Your task to perform on an android device: Open calendar and show me the second week of next month Image 0: 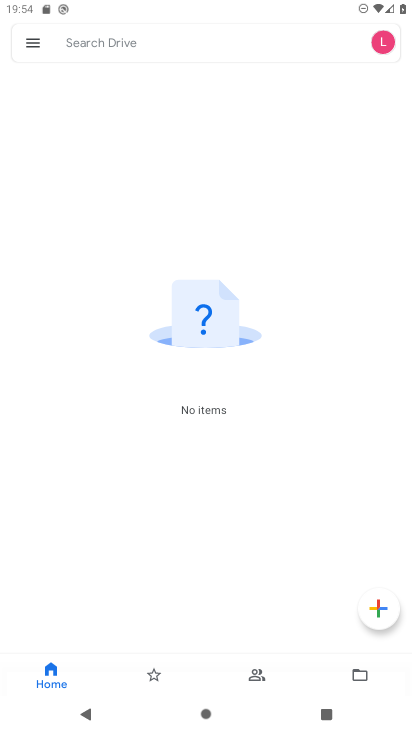
Step 0: press home button
Your task to perform on an android device: Open calendar and show me the second week of next month Image 1: 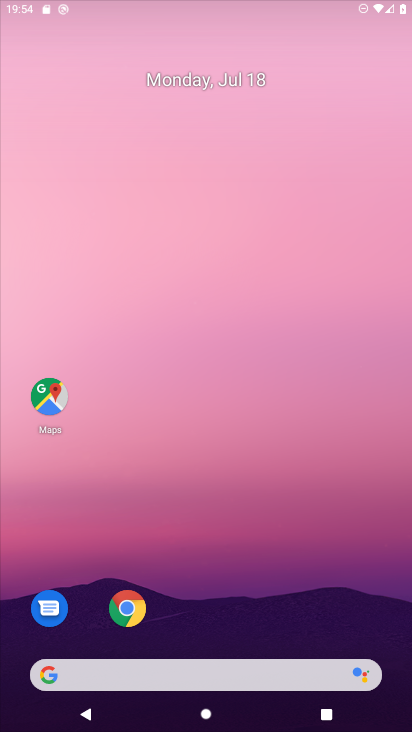
Step 1: drag from (200, 622) to (242, 23)
Your task to perform on an android device: Open calendar and show me the second week of next month Image 2: 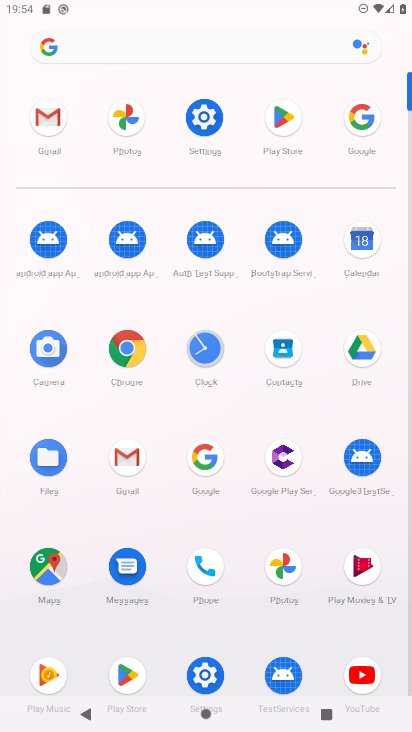
Step 2: click (362, 232)
Your task to perform on an android device: Open calendar and show me the second week of next month Image 3: 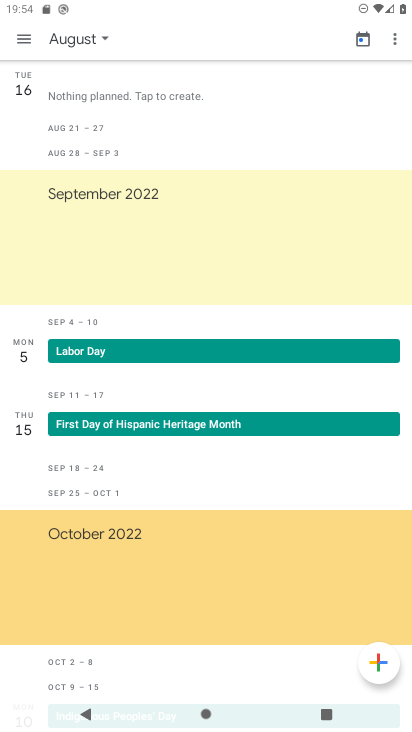
Step 3: click (100, 40)
Your task to perform on an android device: Open calendar and show me the second week of next month Image 4: 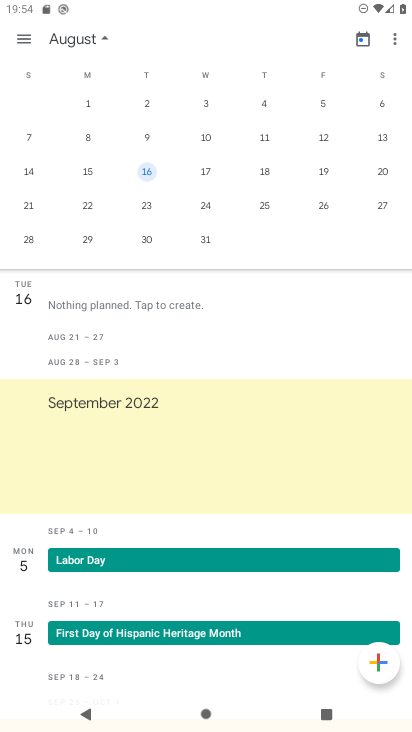
Step 4: click (331, 138)
Your task to perform on an android device: Open calendar and show me the second week of next month Image 5: 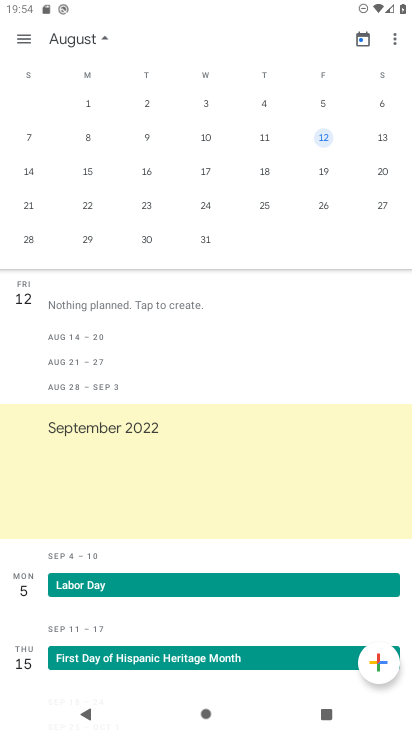
Step 5: task complete